Your task to perform on an android device: Open Yahoo.com Image 0: 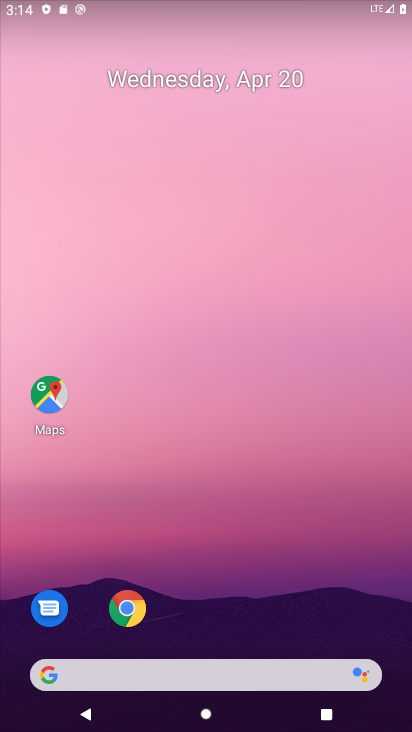
Step 0: click (135, 609)
Your task to perform on an android device: Open Yahoo.com Image 1: 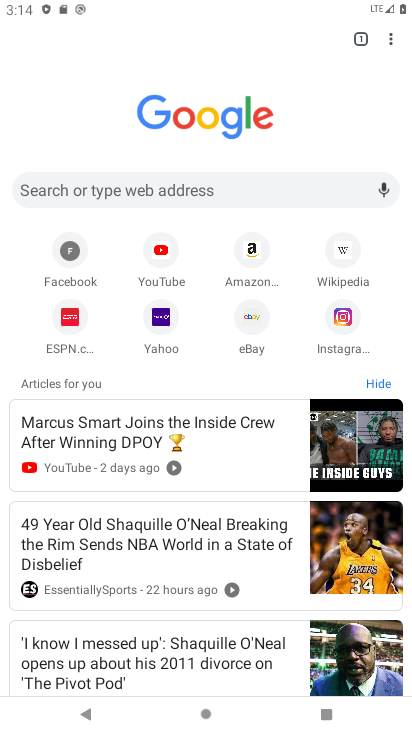
Step 1: click (159, 320)
Your task to perform on an android device: Open Yahoo.com Image 2: 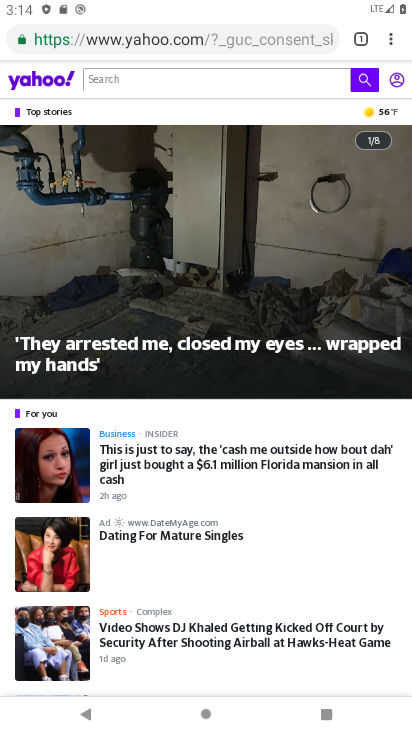
Step 2: task complete